Your task to perform on an android device: change timer sound Image 0: 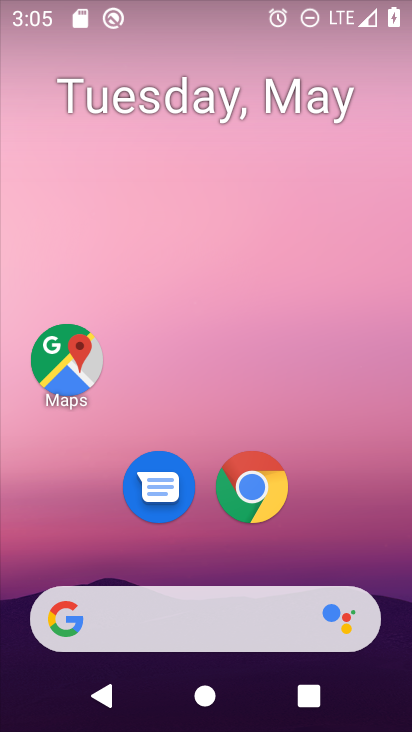
Step 0: task complete